Your task to perform on an android device: Go to sound settings Image 0: 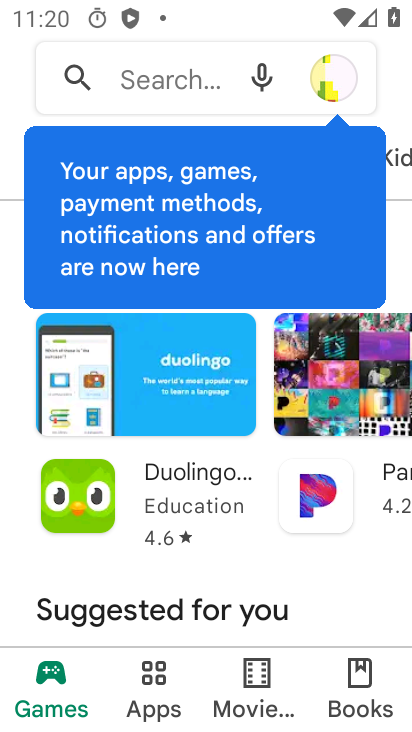
Step 0: press home button
Your task to perform on an android device: Go to sound settings Image 1: 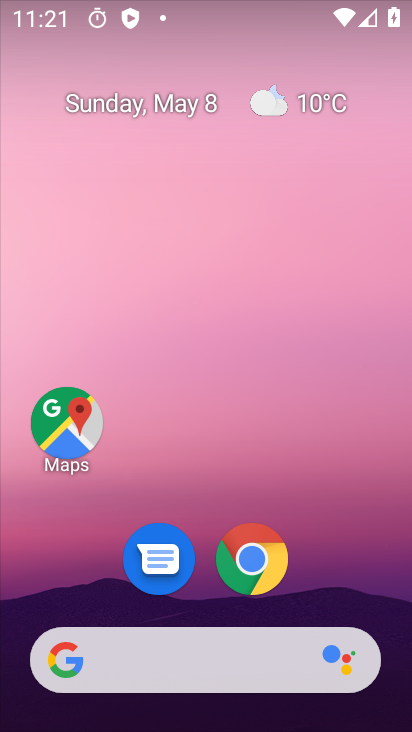
Step 1: drag from (313, 585) to (272, 83)
Your task to perform on an android device: Go to sound settings Image 2: 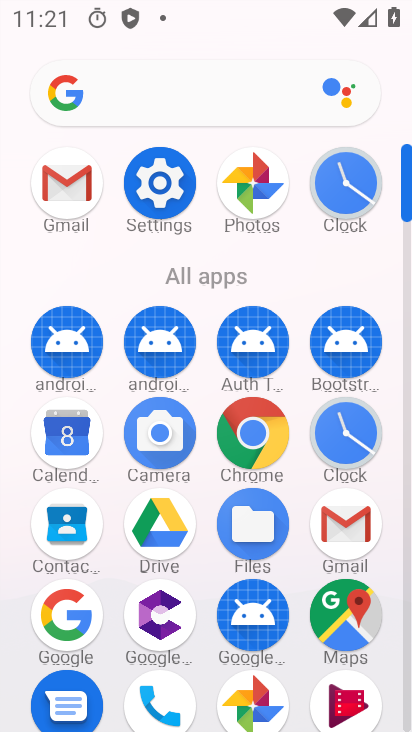
Step 2: click (146, 212)
Your task to perform on an android device: Go to sound settings Image 3: 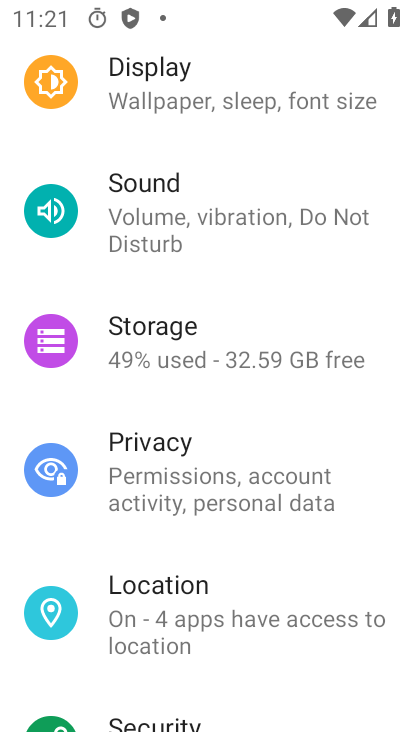
Step 3: click (193, 318)
Your task to perform on an android device: Go to sound settings Image 4: 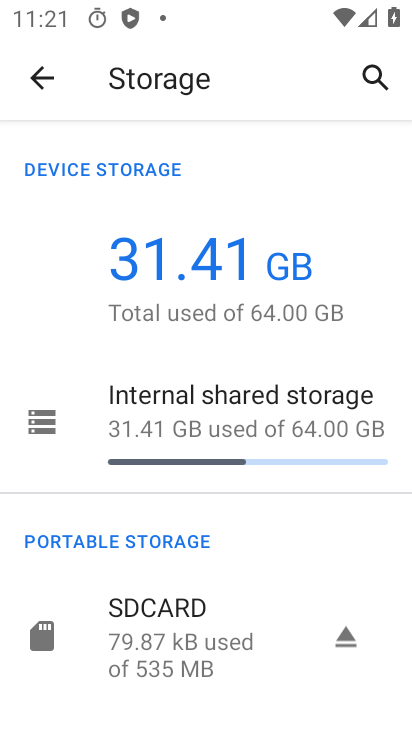
Step 4: press back button
Your task to perform on an android device: Go to sound settings Image 5: 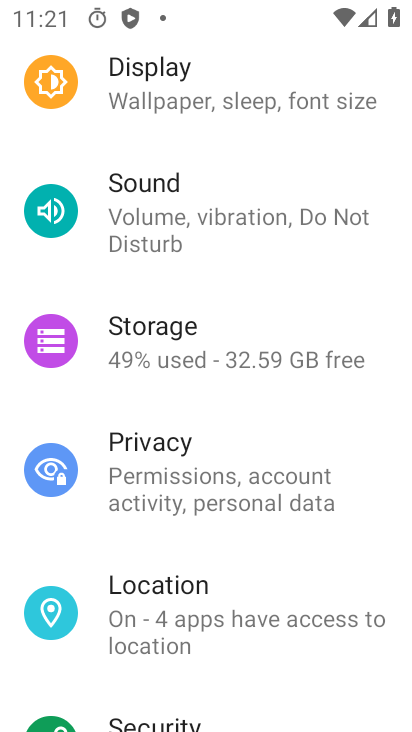
Step 5: click (162, 218)
Your task to perform on an android device: Go to sound settings Image 6: 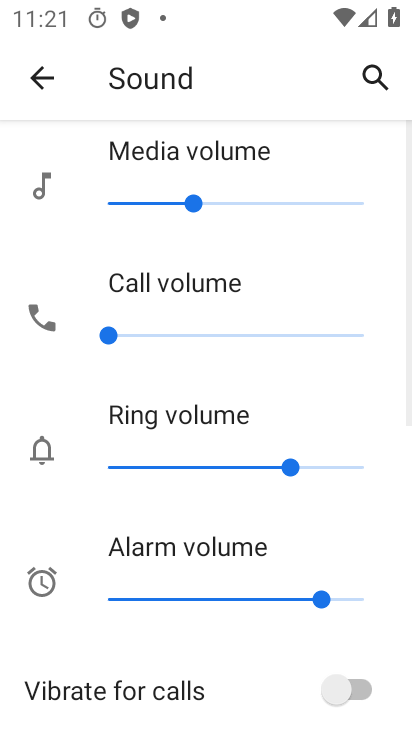
Step 6: task complete